Your task to perform on an android device: add a contact Image 0: 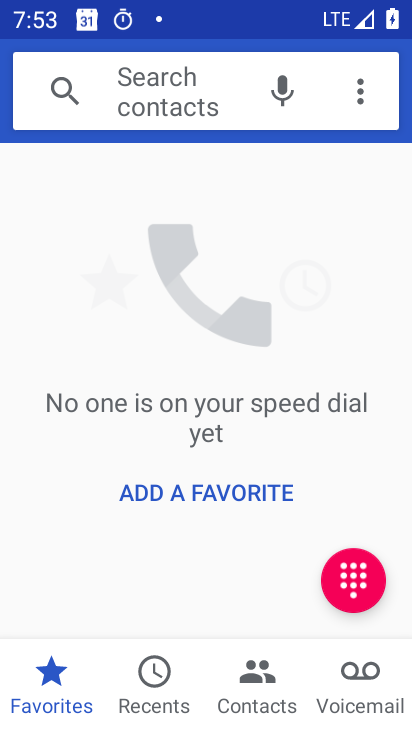
Step 0: press home button
Your task to perform on an android device: add a contact Image 1: 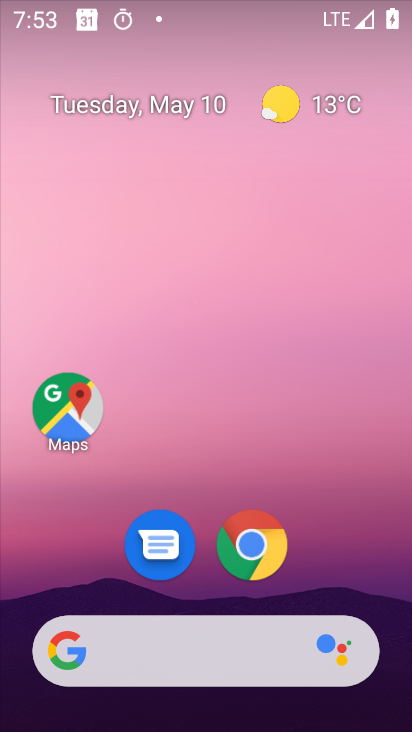
Step 1: drag from (205, 591) to (225, 48)
Your task to perform on an android device: add a contact Image 2: 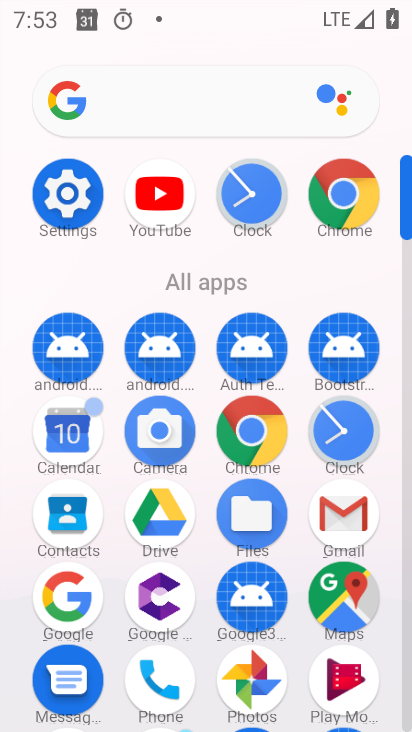
Step 2: click (65, 505)
Your task to perform on an android device: add a contact Image 3: 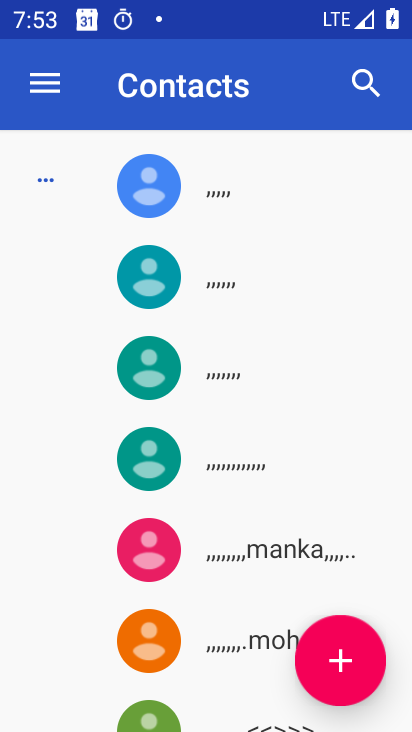
Step 3: click (341, 655)
Your task to perform on an android device: add a contact Image 4: 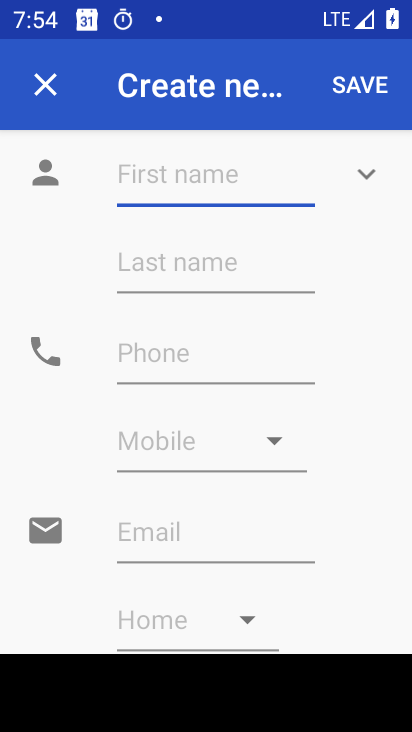
Step 4: type "bfdges"
Your task to perform on an android device: add a contact Image 5: 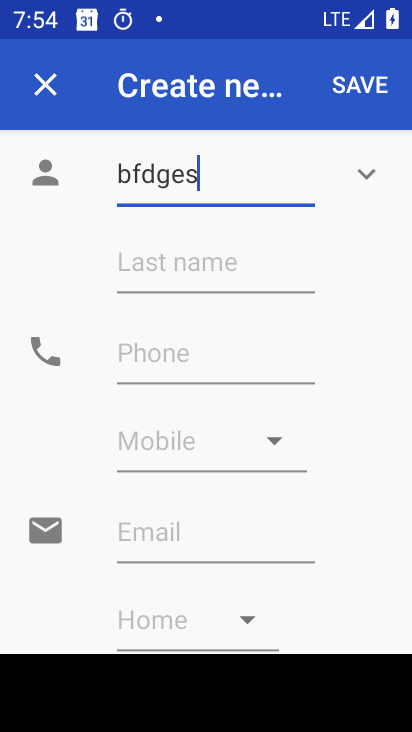
Step 5: click (355, 84)
Your task to perform on an android device: add a contact Image 6: 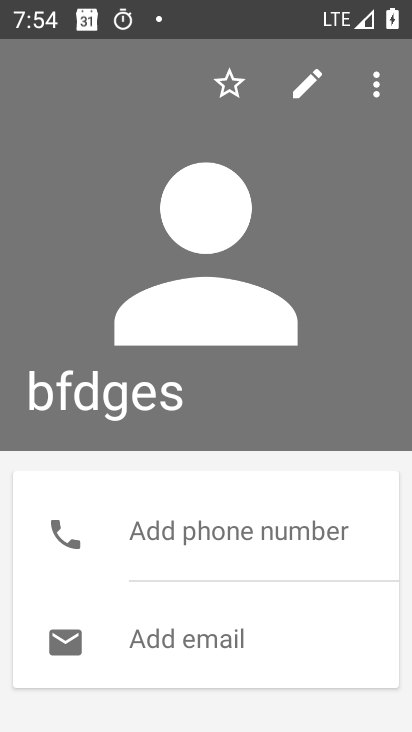
Step 6: task complete